Your task to perform on an android device: set an alarm Image 0: 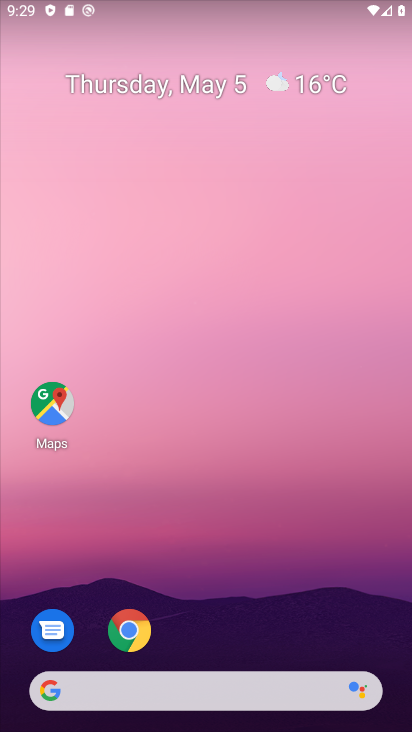
Step 0: drag from (240, 582) to (224, 136)
Your task to perform on an android device: set an alarm Image 1: 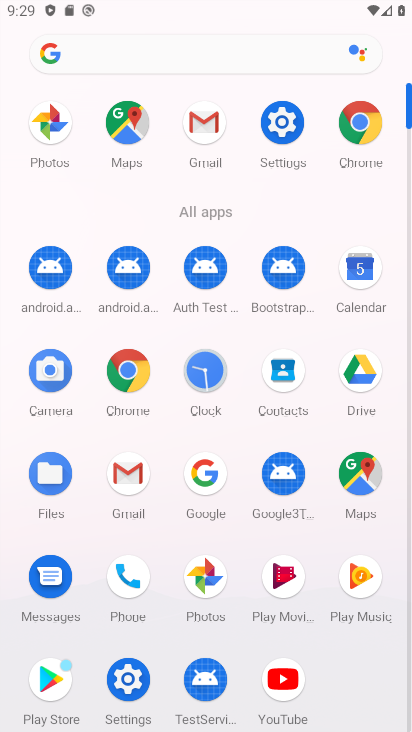
Step 1: click (213, 358)
Your task to perform on an android device: set an alarm Image 2: 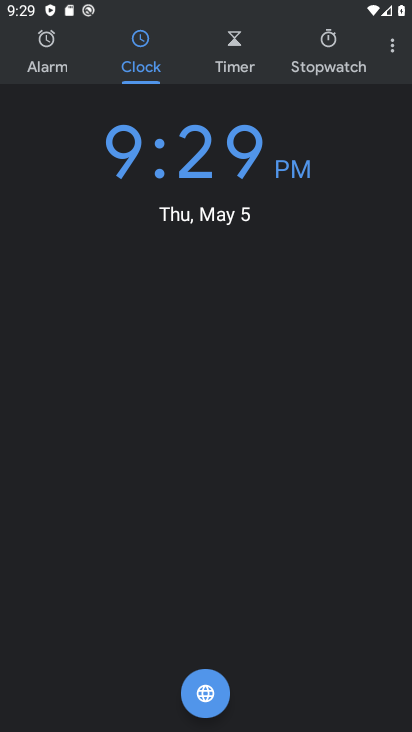
Step 2: click (65, 74)
Your task to perform on an android device: set an alarm Image 3: 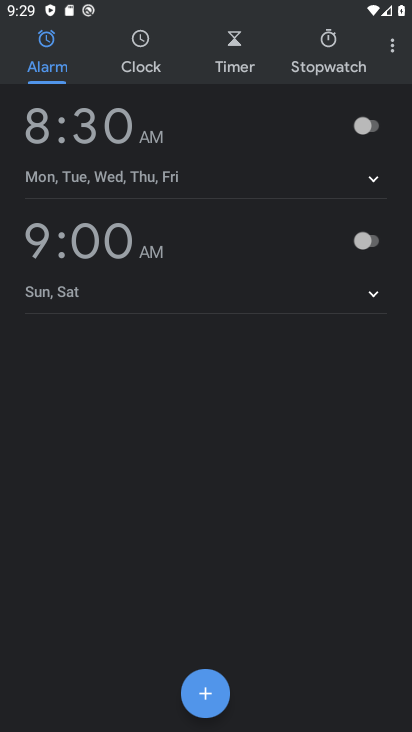
Step 3: click (210, 701)
Your task to perform on an android device: set an alarm Image 4: 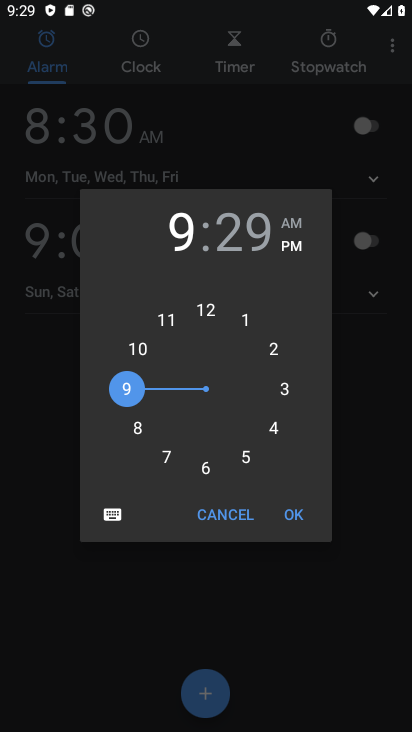
Step 4: click (293, 514)
Your task to perform on an android device: set an alarm Image 5: 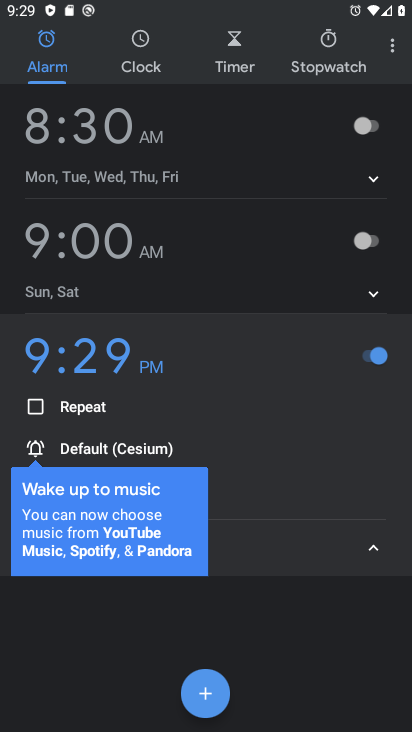
Step 5: click (236, 610)
Your task to perform on an android device: set an alarm Image 6: 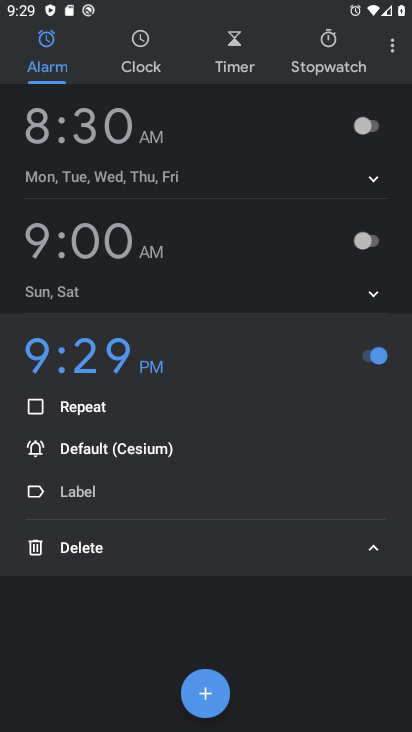
Step 6: task complete